Your task to perform on an android device: search for starred emails in the gmail app Image 0: 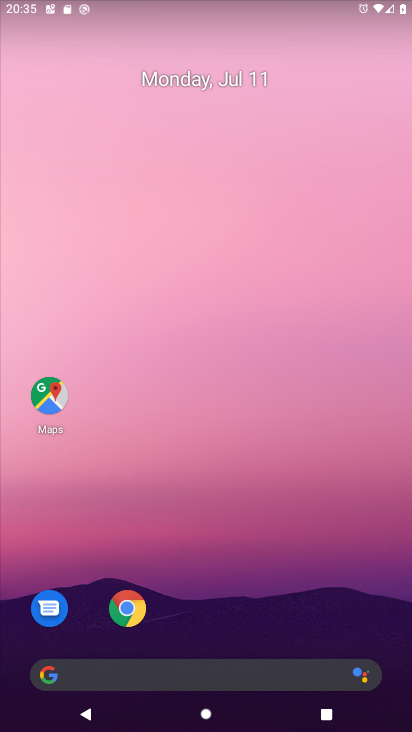
Step 0: drag from (320, 587) to (274, 2)
Your task to perform on an android device: search for starred emails in the gmail app Image 1: 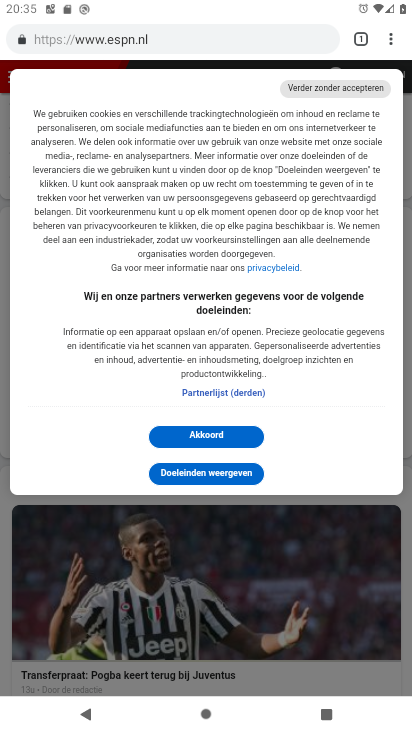
Step 1: press home button
Your task to perform on an android device: search for starred emails in the gmail app Image 2: 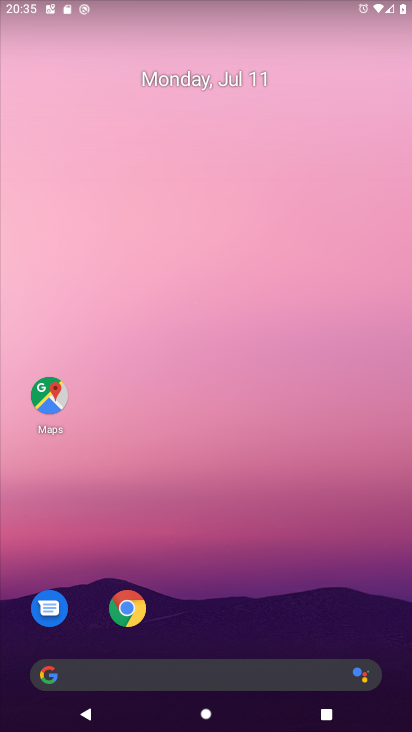
Step 2: drag from (251, 638) to (204, 153)
Your task to perform on an android device: search for starred emails in the gmail app Image 3: 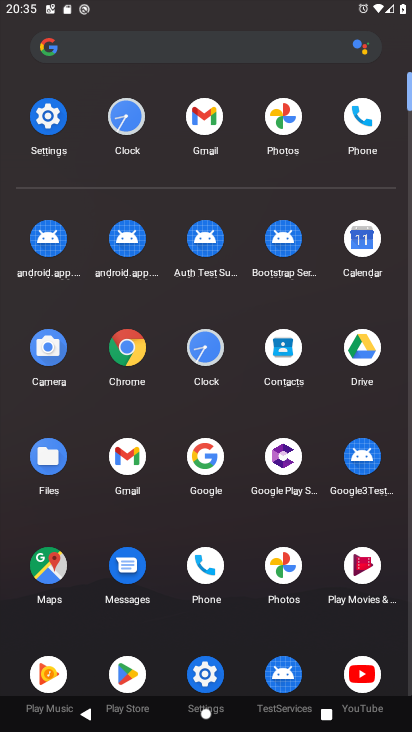
Step 3: click (204, 121)
Your task to perform on an android device: search for starred emails in the gmail app Image 4: 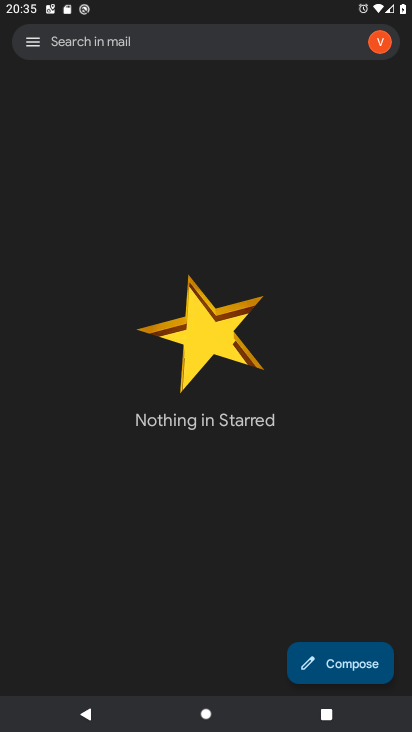
Step 4: click (33, 38)
Your task to perform on an android device: search for starred emails in the gmail app Image 5: 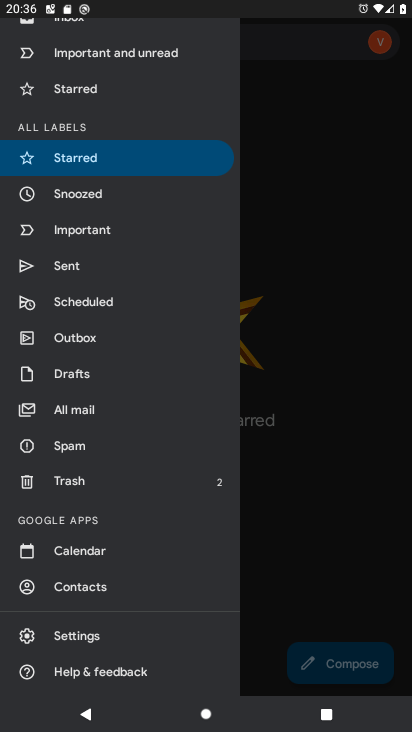
Step 5: click (69, 155)
Your task to perform on an android device: search for starred emails in the gmail app Image 6: 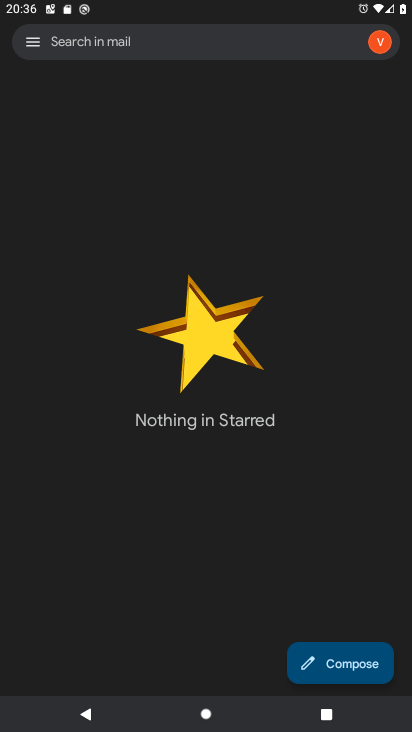
Step 6: task complete